Your task to perform on an android device: set the stopwatch Image 0: 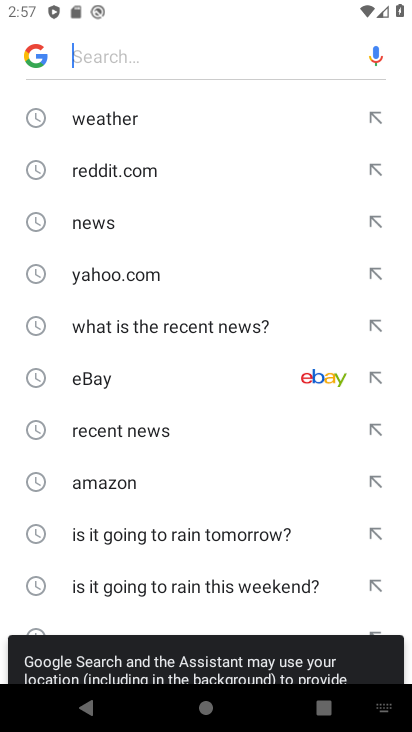
Step 0: press home button
Your task to perform on an android device: set the stopwatch Image 1: 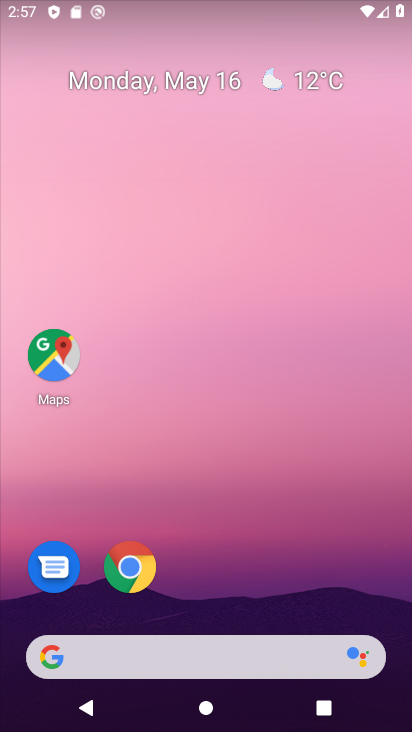
Step 1: drag from (259, 565) to (287, 18)
Your task to perform on an android device: set the stopwatch Image 2: 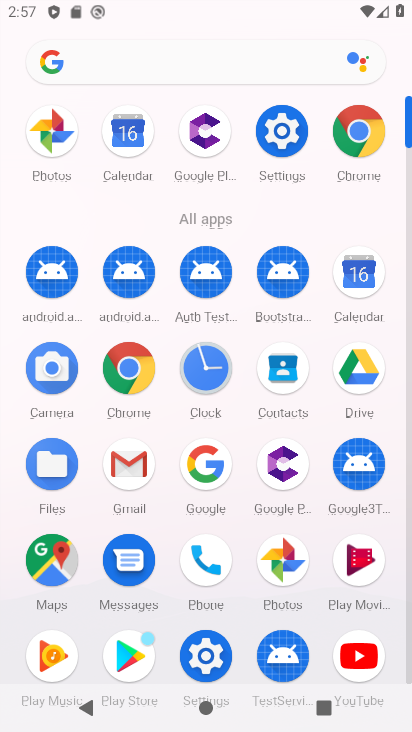
Step 2: click (213, 363)
Your task to perform on an android device: set the stopwatch Image 3: 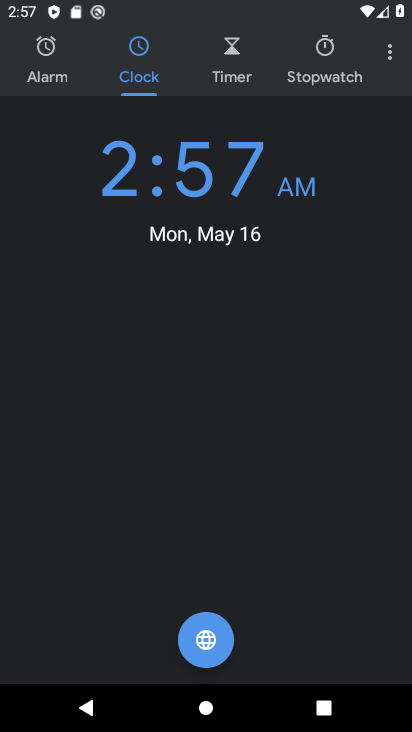
Step 3: click (331, 74)
Your task to perform on an android device: set the stopwatch Image 4: 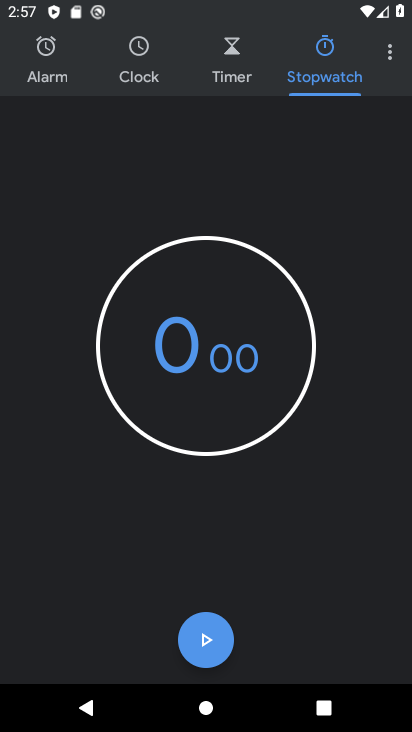
Step 4: click (224, 657)
Your task to perform on an android device: set the stopwatch Image 5: 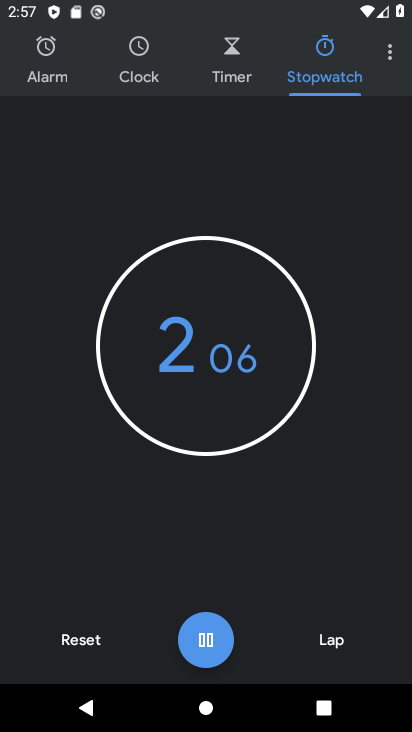
Step 5: task complete